Your task to perform on an android device: Go to display settings Image 0: 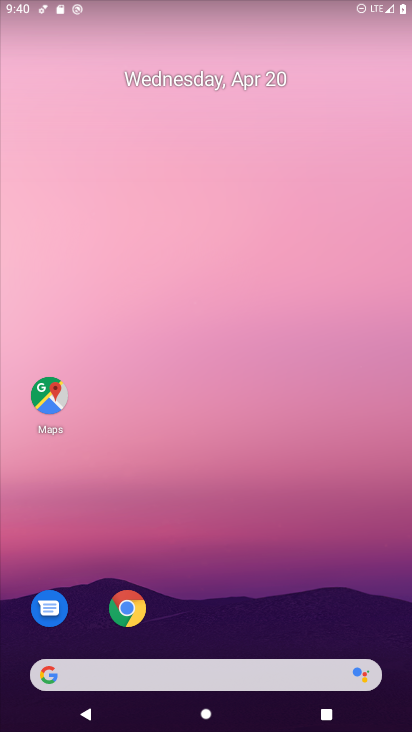
Step 0: drag from (211, 637) to (261, 8)
Your task to perform on an android device: Go to display settings Image 1: 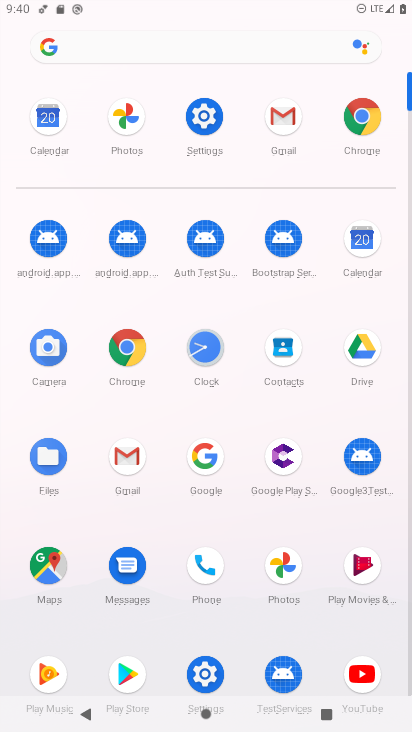
Step 1: click (213, 134)
Your task to perform on an android device: Go to display settings Image 2: 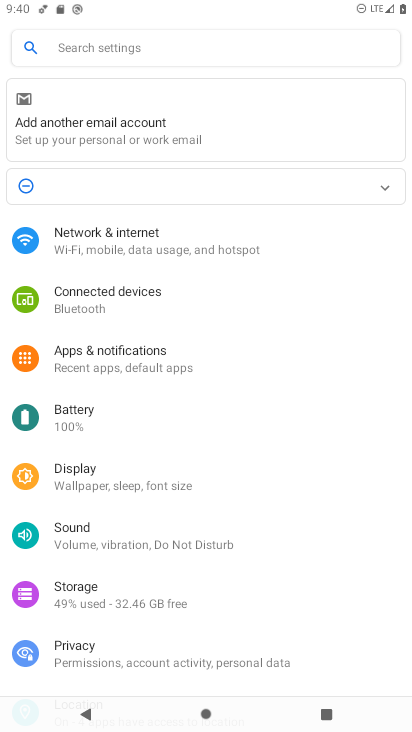
Step 2: click (99, 480)
Your task to perform on an android device: Go to display settings Image 3: 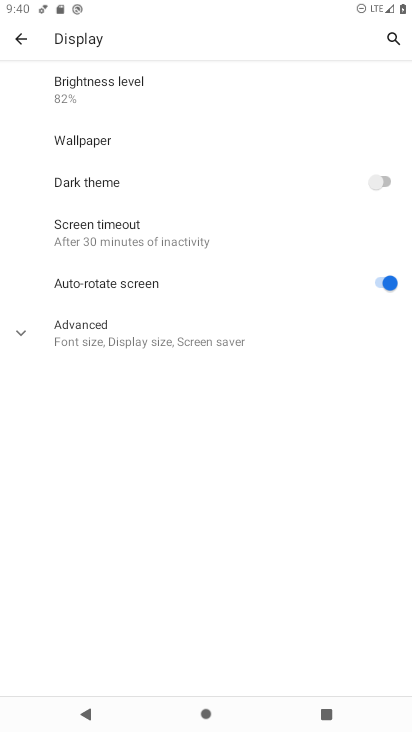
Step 3: task complete